Your task to perform on an android device: turn on the 24-hour format for clock Image 0: 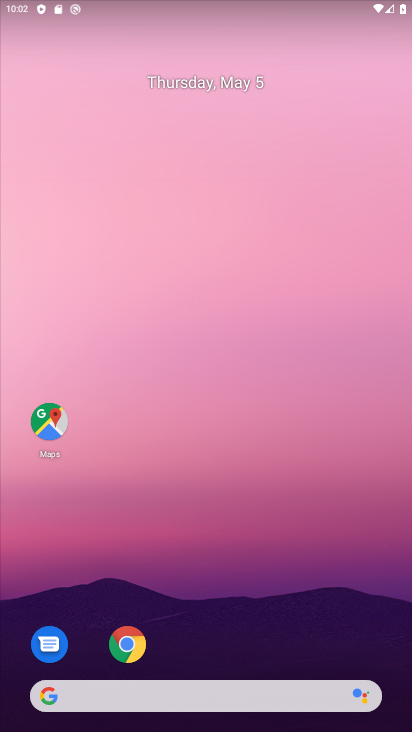
Step 0: drag from (216, 673) to (206, 68)
Your task to perform on an android device: turn on the 24-hour format for clock Image 1: 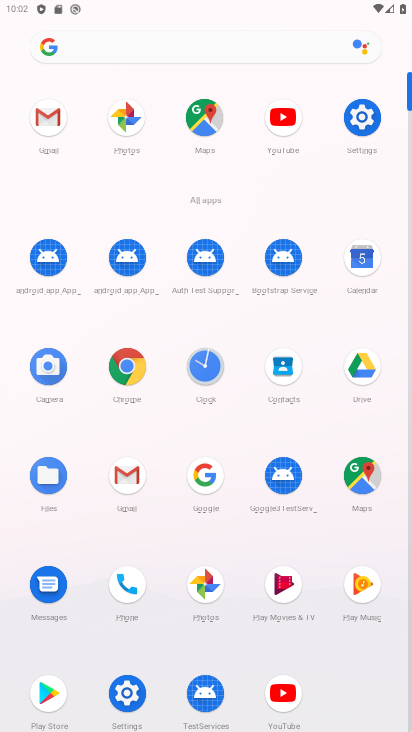
Step 1: click (195, 369)
Your task to perform on an android device: turn on the 24-hour format for clock Image 2: 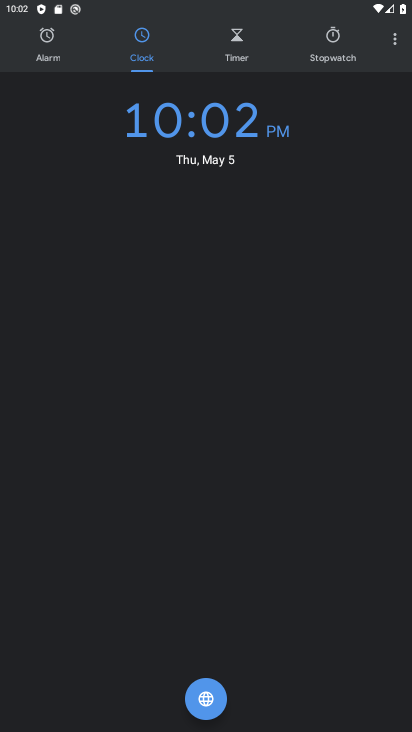
Step 2: click (394, 45)
Your task to perform on an android device: turn on the 24-hour format for clock Image 3: 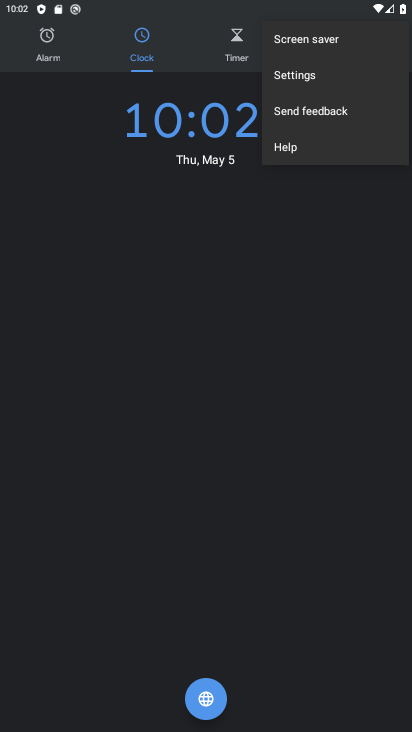
Step 3: click (300, 76)
Your task to perform on an android device: turn on the 24-hour format for clock Image 4: 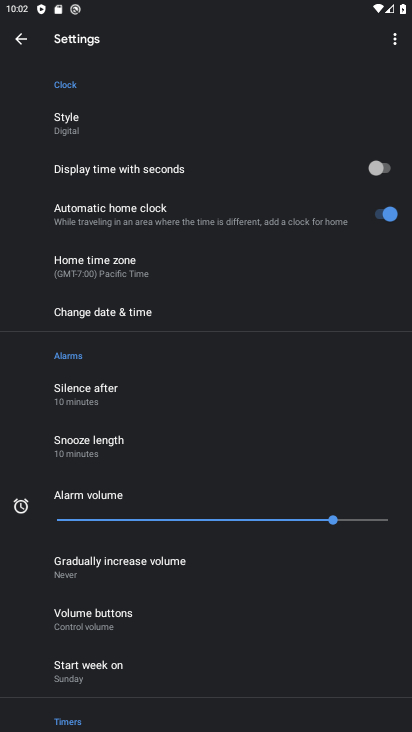
Step 4: click (59, 309)
Your task to perform on an android device: turn on the 24-hour format for clock Image 5: 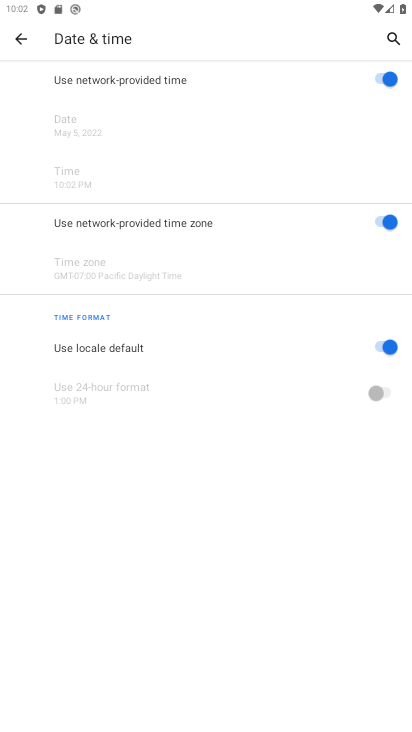
Step 5: click (376, 345)
Your task to perform on an android device: turn on the 24-hour format for clock Image 6: 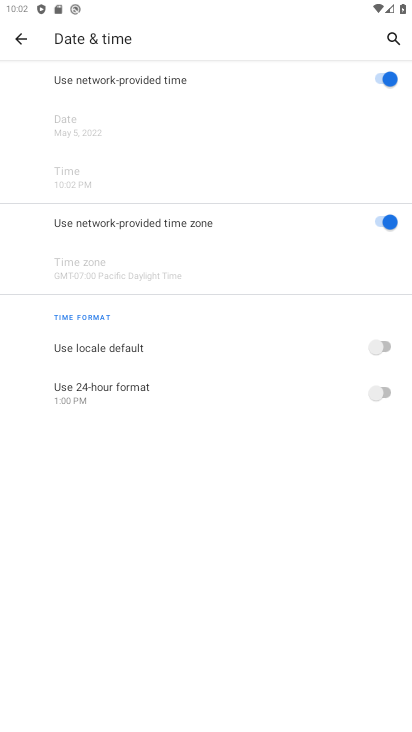
Step 6: click (376, 390)
Your task to perform on an android device: turn on the 24-hour format for clock Image 7: 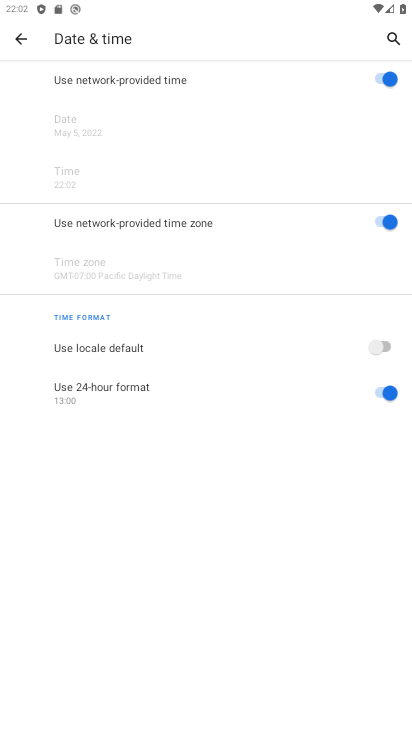
Step 7: task complete